Your task to perform on an android device: allow notifications from all sites in the chrome app Image 0: 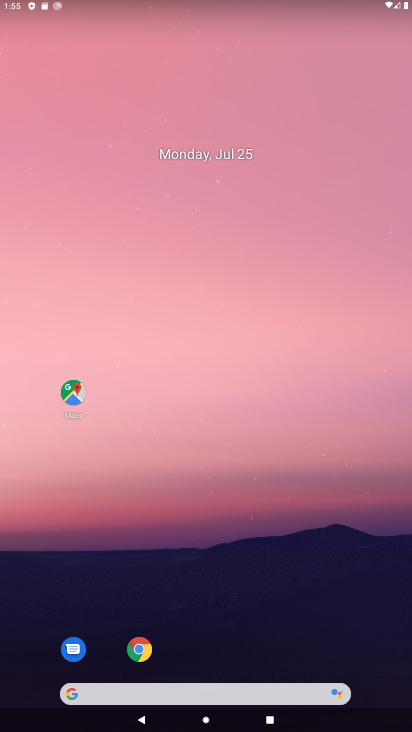
Step 0: click (144, 655)
Your task to perform on an android device: allow notifications from all sites in the chrome app Image 1: 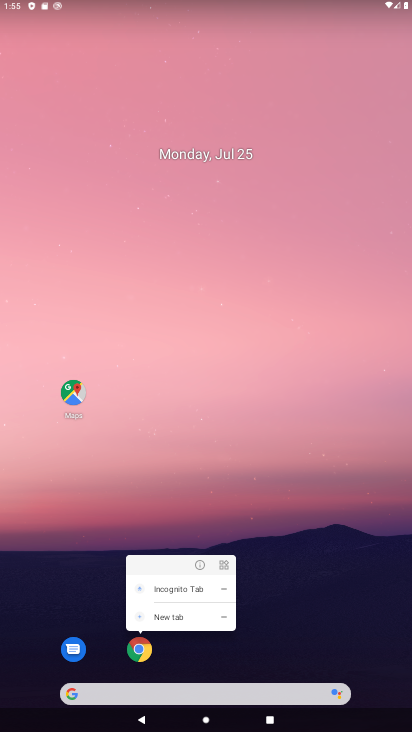
Step 1: click (200, 566)
Your task to perform on an android device: allow notifications from all sites in the chrome app Image 2: 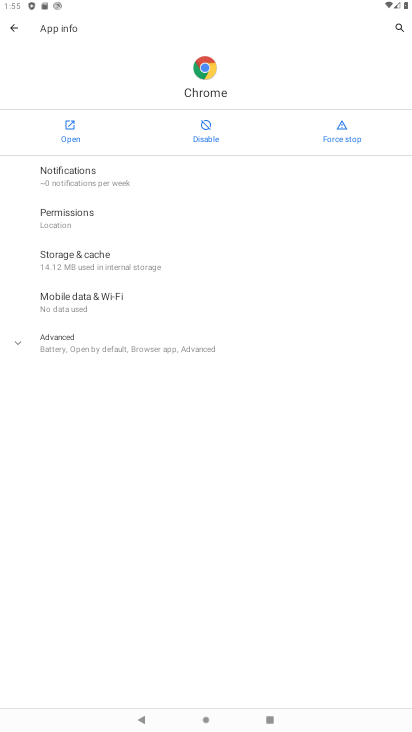
Step 2: click (144, 175)
Your task to perform on an android device: allow notifications from all sites in the chrome app Image 3: 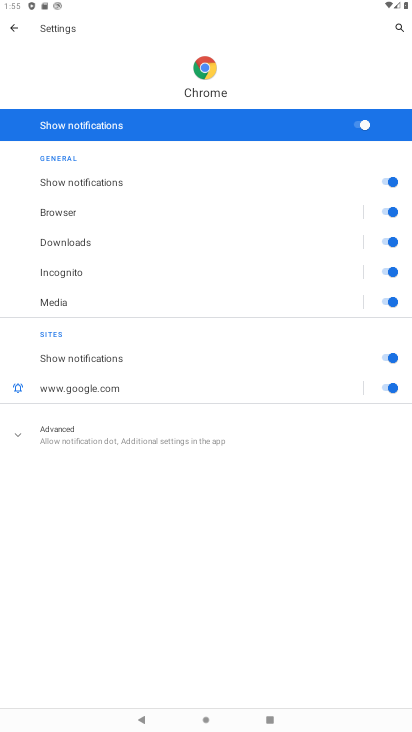
Step 3: task complete